Your task to perform on an android device: Open Chrome and go to the settings page Image 0: 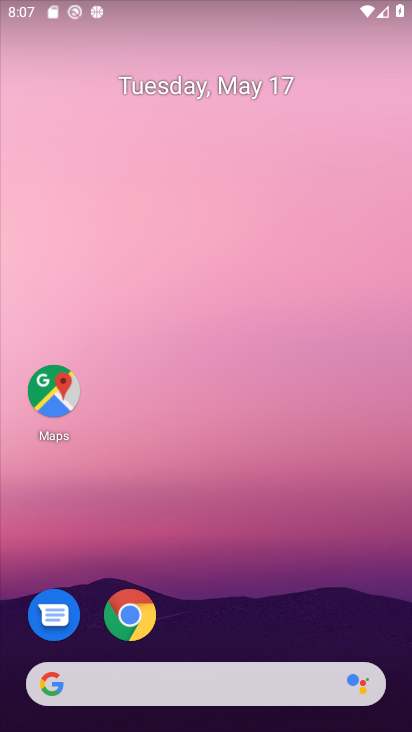
Step 0: click (129, 632)
Your task to perform on an android device: Open Chrome and go to the settings page Image 1: 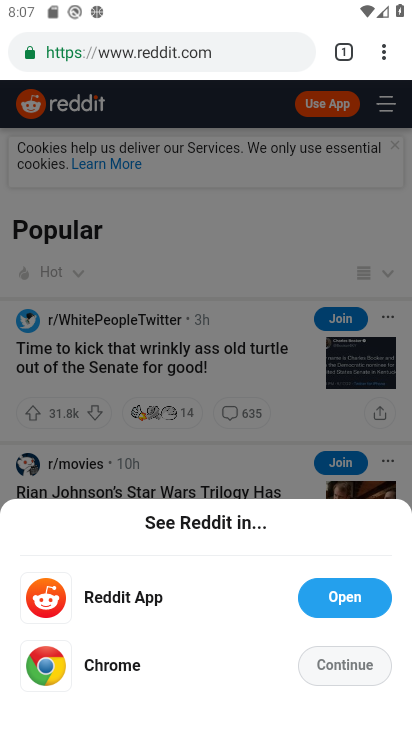
Step 1: task complete